Your task to perform on an android device: change notifications settings Image 0: 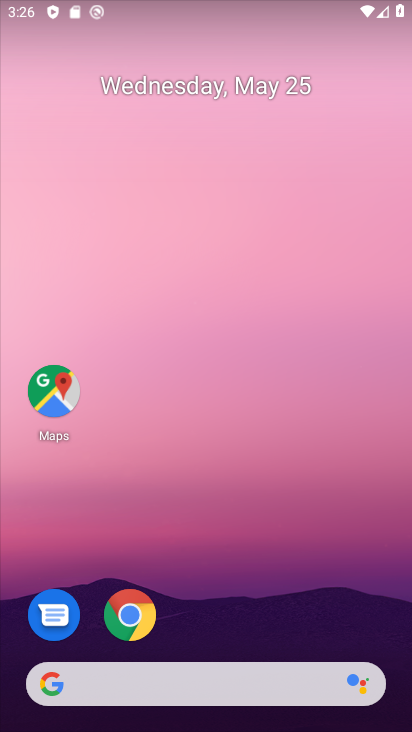
Step 0: drag from (233, 580) to (337, 154)
Your task to perform on an android device: change notifications settings Image 1: 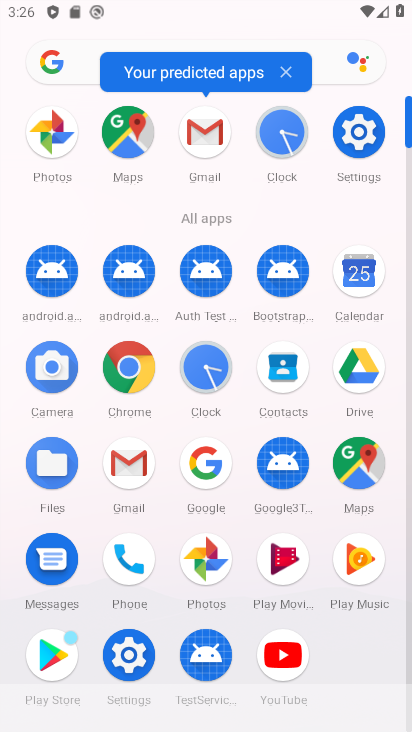
Step 1: click (132, 681)
Your task to perform on an android device: change notifications settings Image 2: 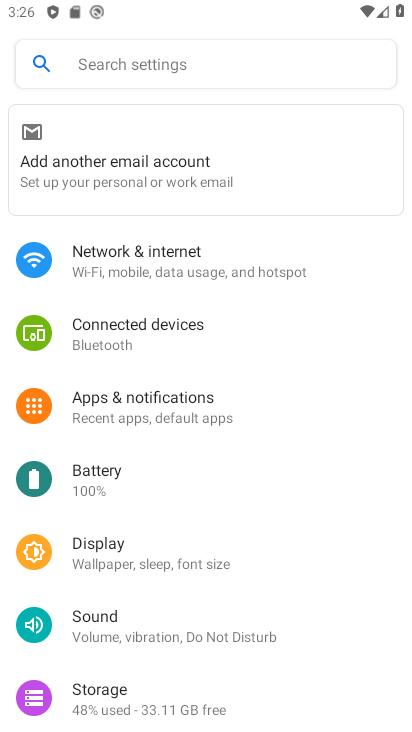
Step 2: drag from (154, 670) to (186, 537)
Your task to perform on an android device: change notifications settings Image 3: 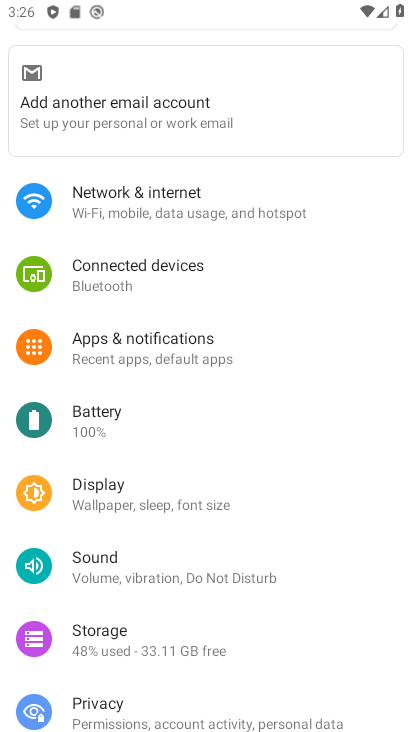
Step 3: click (202, 350)
Your task to perform on an android device: change notifications settings Image 4: 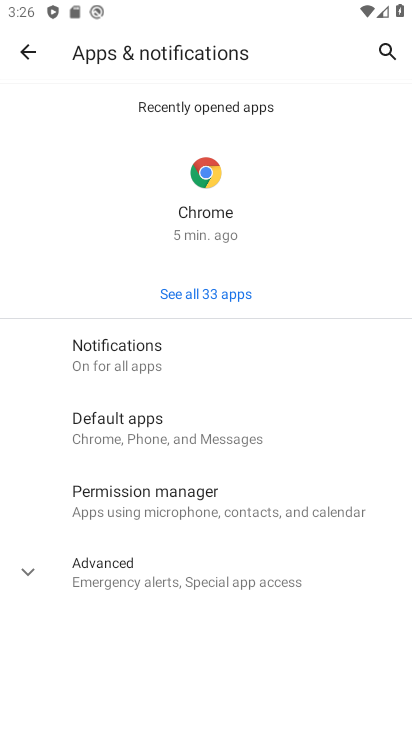
Step 4: click (191, 370)
Your task to perform on an android device: change notifications settings Image 5: 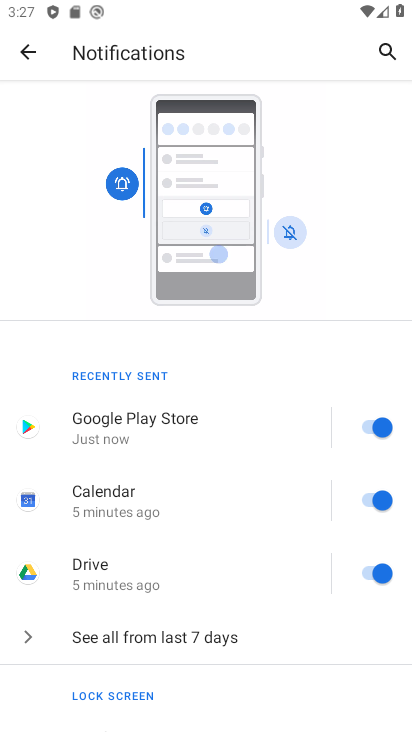
Step 5: click (166, 703)
Your task to perform on an android device: change notifications settings Image 6: 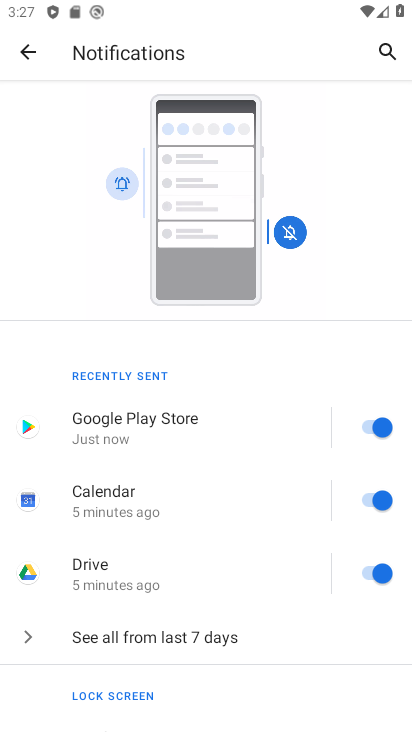
Step 6: click (384, 583)
Your task to perform on an android device: change notifications settings Image 7: 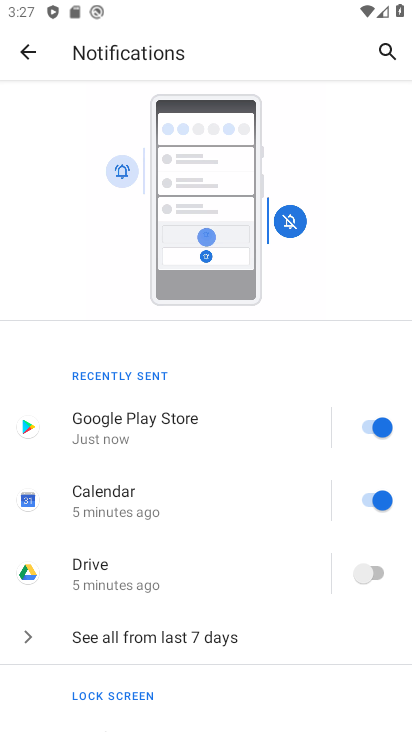
Step 7: click (378, 502)
Your task to perform on an android device: change notifications settings Image 8: 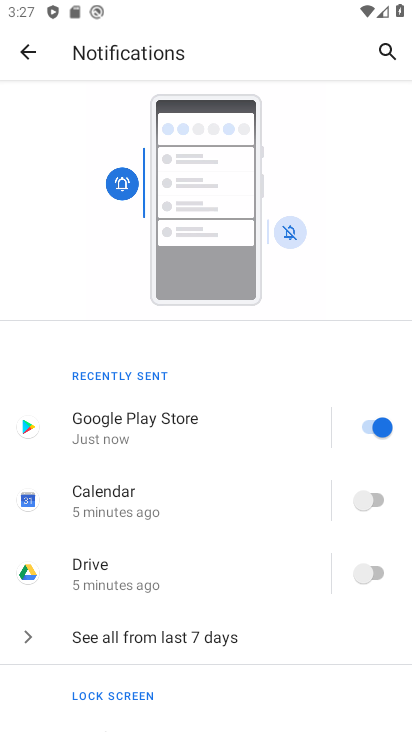
Step 8: drag from (157, 601) to (236, 303)
Your task to perform on an android device: change notifications settings Image 9: 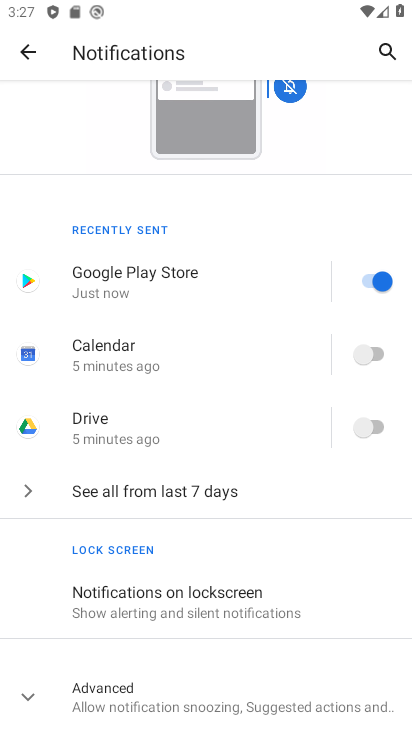
Step 9: drag from (125, 617) to (228, 285)
Your task to perform on an android device: change notifications settings Image 10: 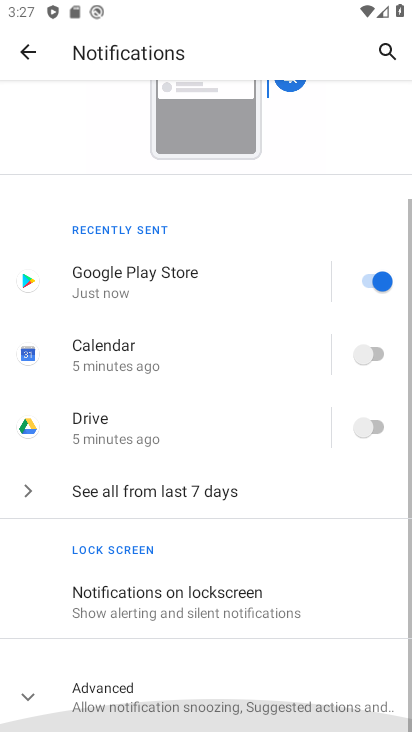
Step 10: click (181, 587)
Your task to perform on an android device: change notifications settings Image 11: 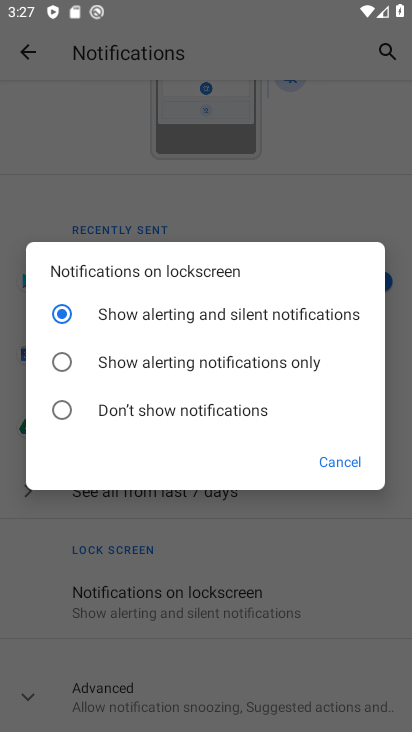
Step 11: click (193, 424)
Your task to perform on an android device: change notifications settings Image 12: 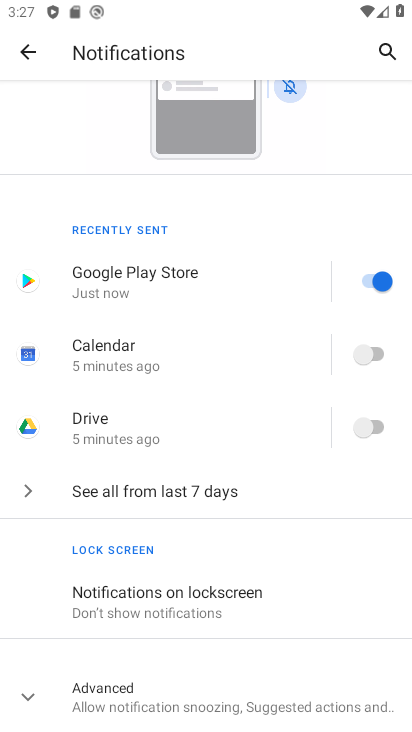
Step 12: click (154, 702)
Your task to perform on an android device: change notifications settings Image 13: 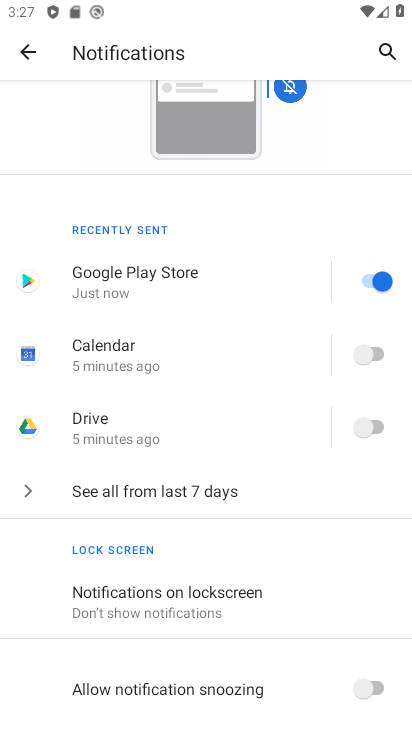
Step 13: drag from (89, 662) to (215, 260)
Your task to perform on an android device: change notifications settings Image 14: 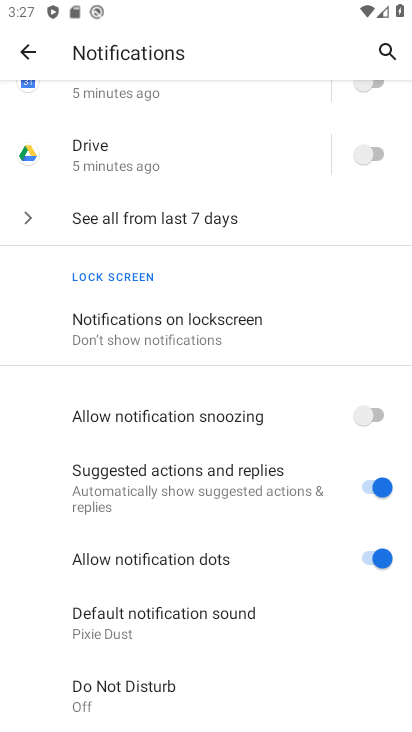
Step 14: click (386, 549)
Your task to perform on an android device: change notifications settings Image 15: 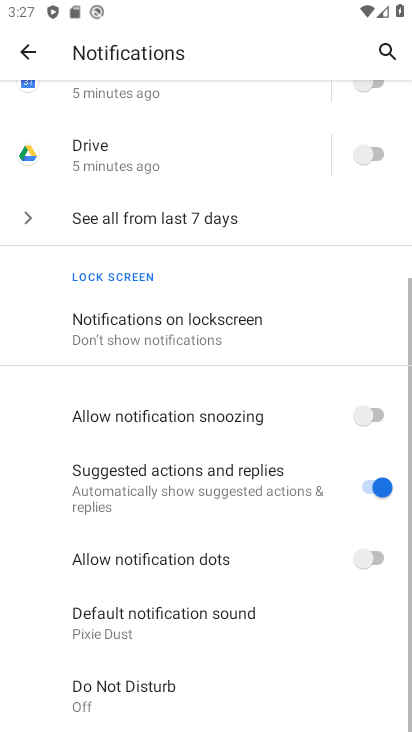
Step 15: click (180, 625)
Your task to perform on an android device: change notifications settings Image 16: 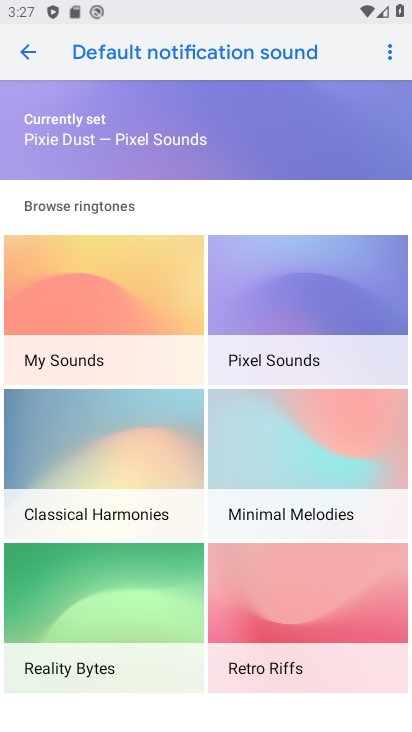
Step 16: click (279, 467)
Your task to perform on an android device: change notifications settings Image 17: 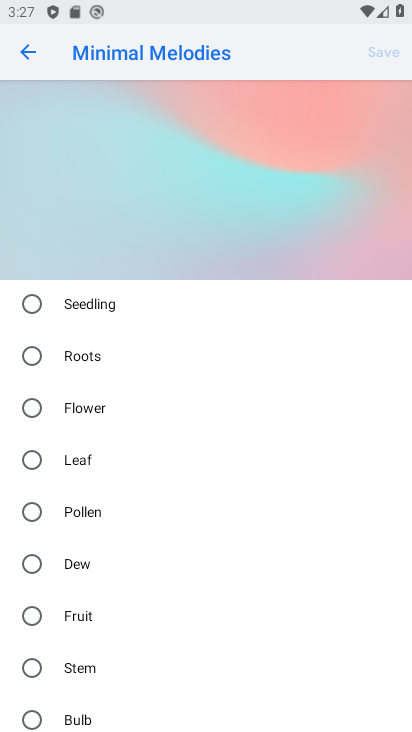
Step 17: click (149, 565)
Your task to perform on an android device: change notifications settings Image 18: 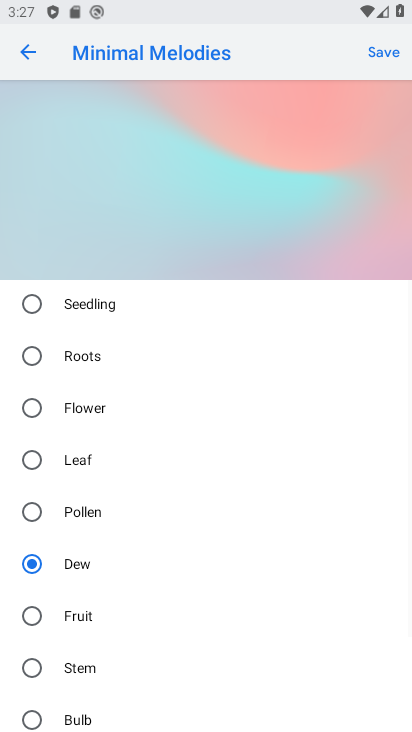
Step 18: click (385, 45)
Your task to perform on an android device: change notifications settings Image 19: 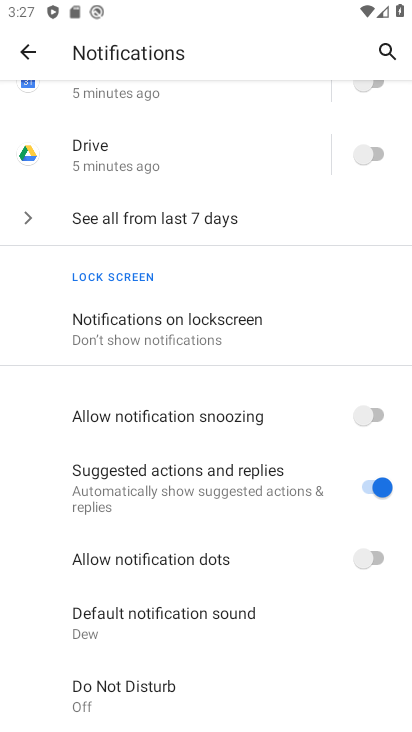
Step 19: task complete